Your task to perform on an android device: Go to CNN.com Image 0: 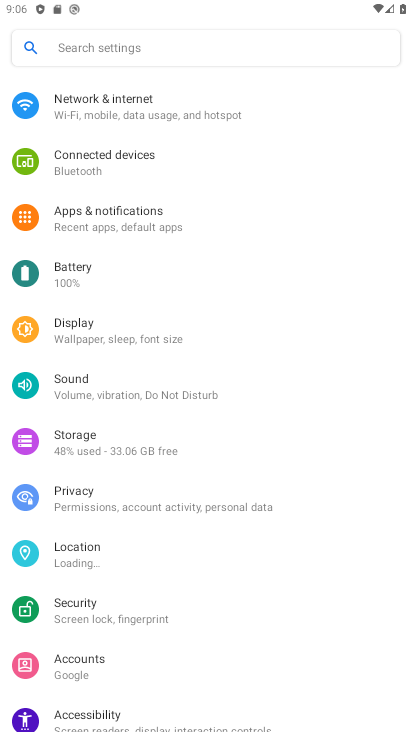
Step 0: press home button
Your task to perform on an android device: Go to CNN.com Image 1: 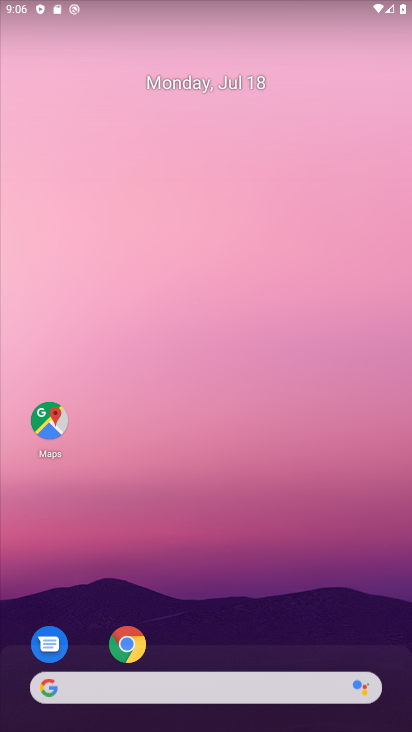
Step 1: drag from (185, 677) to (231, 51)
Your task to perform on an android device: Go to CNN.com Image 2: 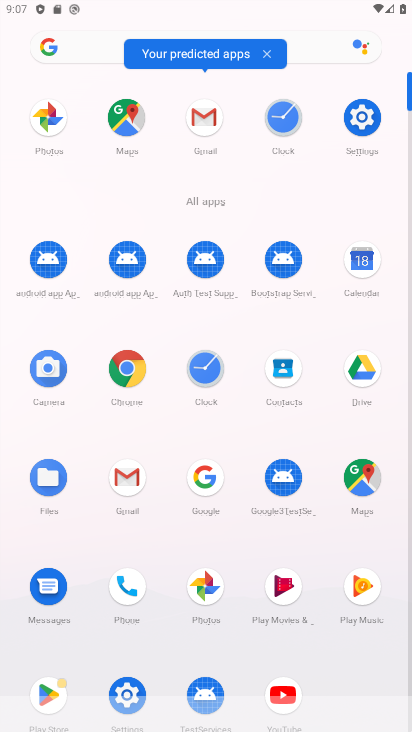
Step 2: click (133, 358)
Your task to perform on an android device: Go to CNN.com Image 3: 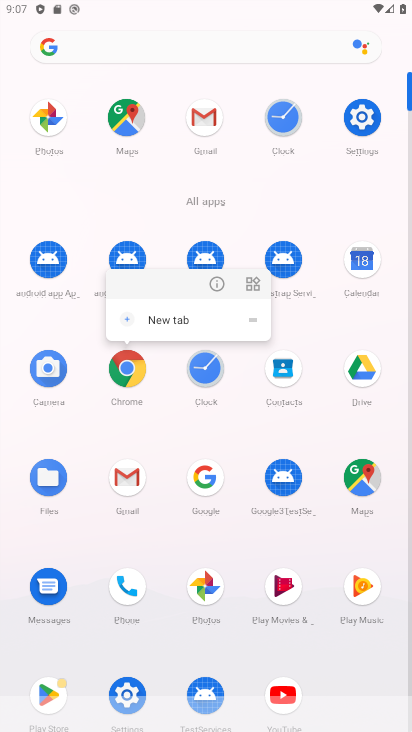
Step 3: click (135, 365)
Your task to perform on an android device: Go to CNN.com Image 4: 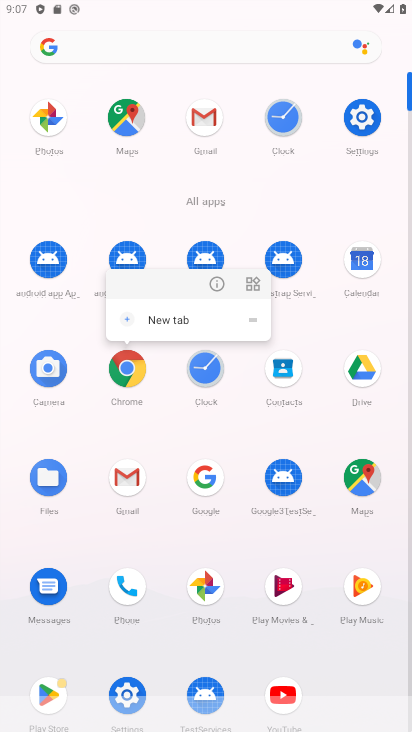
Step 4: click (128, 375)
Your task to perform on an android device: Go to CNN.com Image 5: 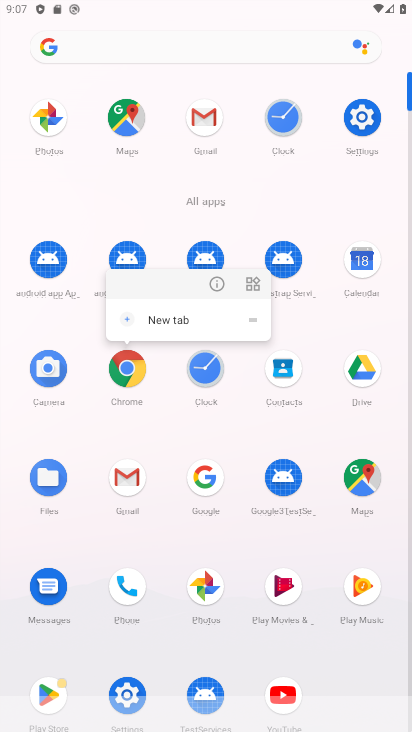
Step 5: click (126, 386)
Your task to perform on an android device: Go to CNN.com Image 6: 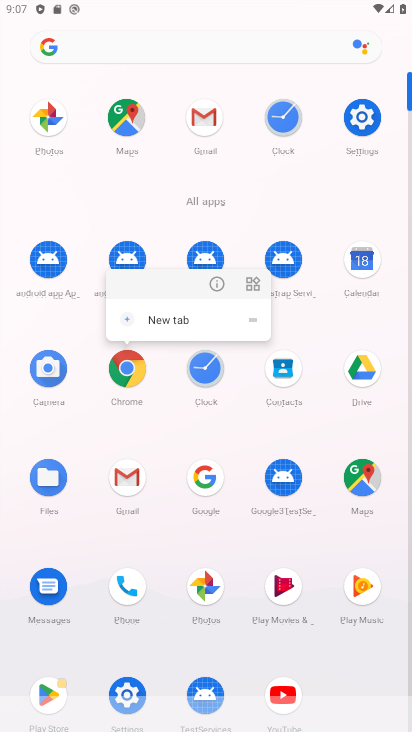
Step 6: click (126, 385)
Your task to perform on an android device: Go to CNN.com Image 7: 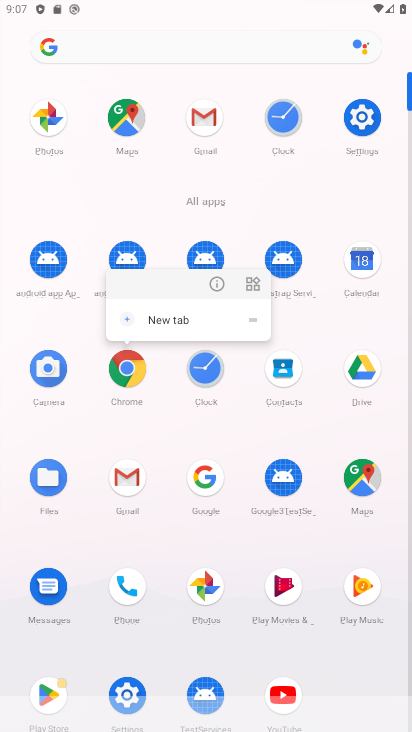
Step 7: click (126, 362)
Your task to perform on an android device: Go to CNN.com Image 8: 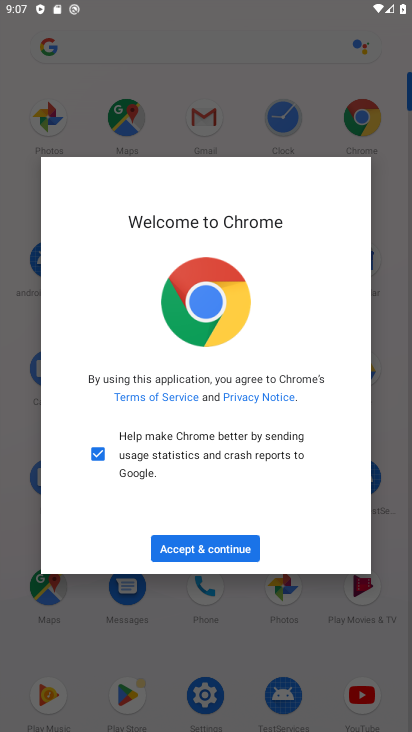
Step 8: click (232, 546)
Your task to perform on an android device: Go to CNN.com Image 9: 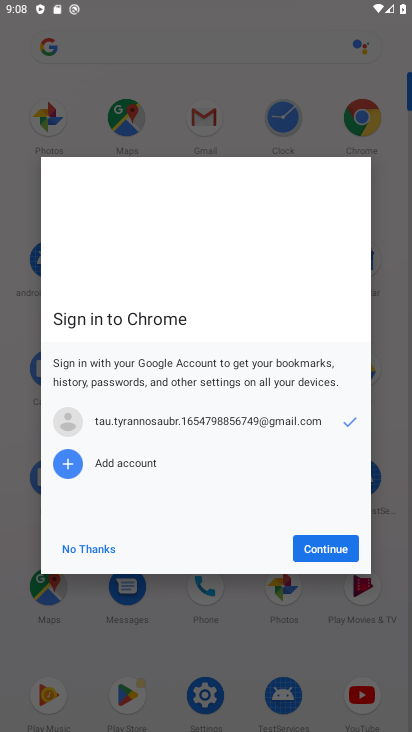
Step 9: click (301, 551)
Your task to perform on an android device: Go to CNN.com Image 10: 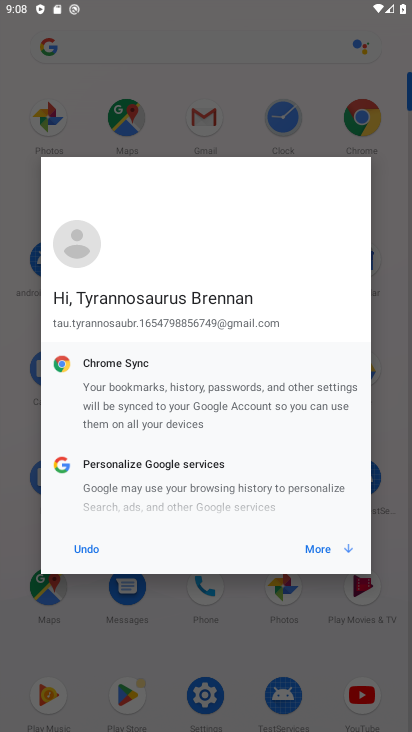
Step 10: click (318, 549)
Your task to perform on an android device: Go to CNN.com Image 11: 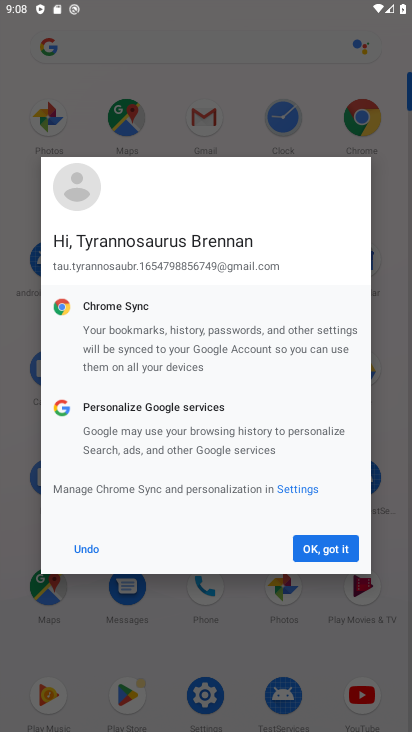
Step 11: click (313, 547)
Your task to perform on an android device: Go to CNN.com Image 12: 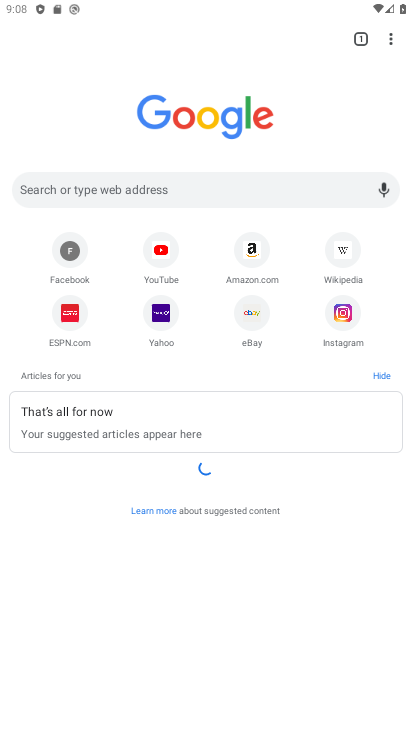
Step 12: click (172, 187)
Your task to perform on an android device: Go to CNN.com Image 13: 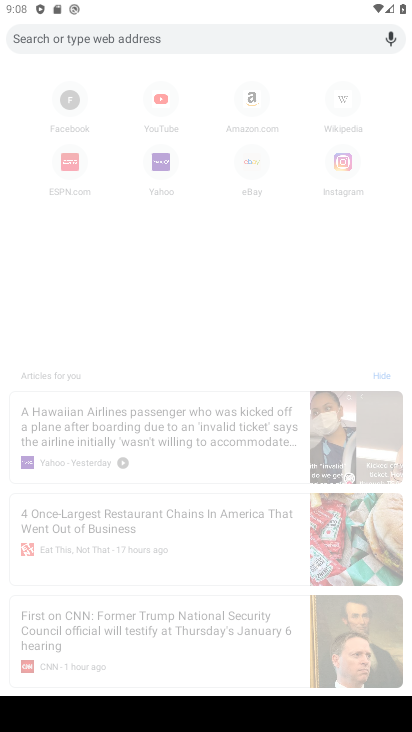
Step 13: type "CNN.com"
Your task to perform on an android device: Go to CNN.com Image 14: 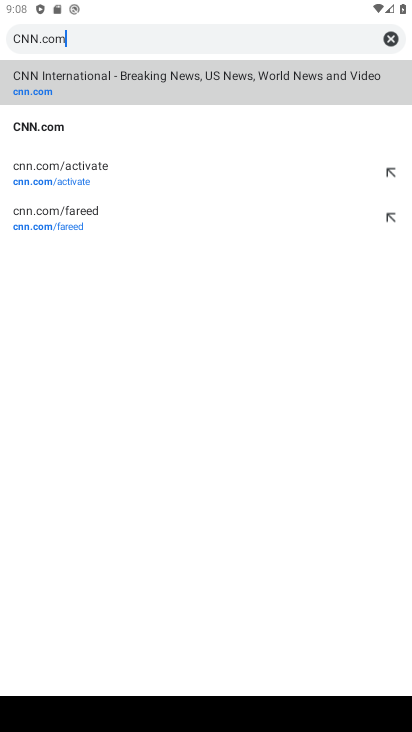
Step 14: type ""
Your task to perform on an android device: Go to CNN.com Image 15: 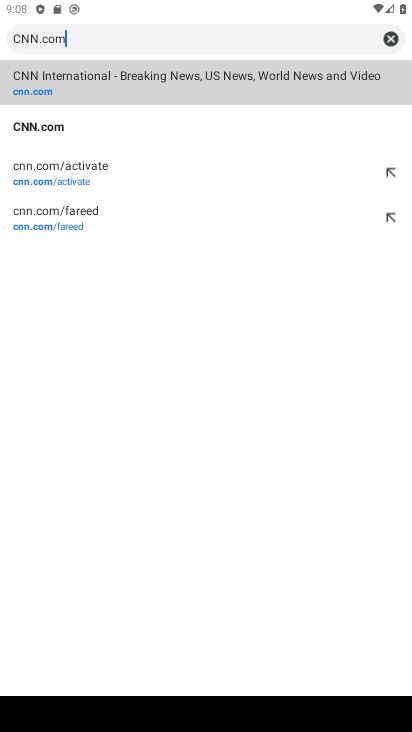
Step 15: click (64, 82)
Your task to perform on an android device: Go to CNN.com Image 16: 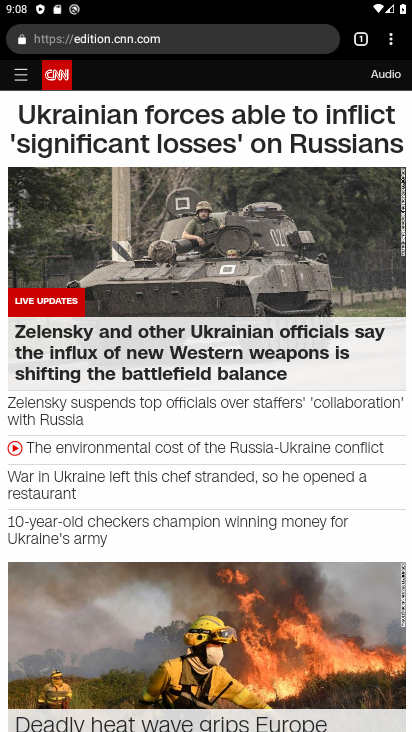
Step 16: task complete